Your task to perform on an android device: turn on sleep mode Image 0: 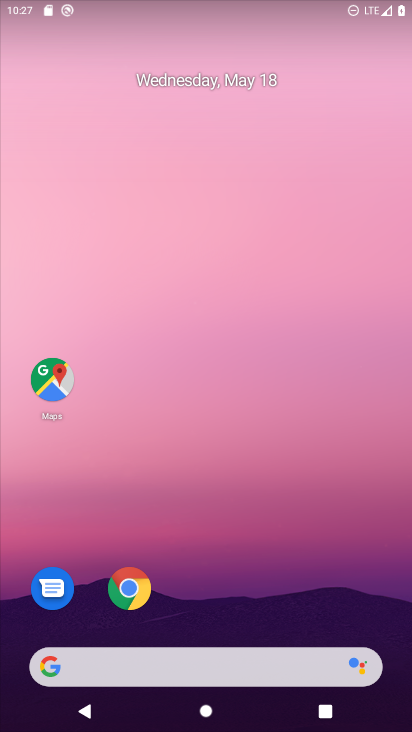
Step 0: drag from (324, 627) to (324, 30)
Your task to perform on an android device: turn on sleep mode Image 1: 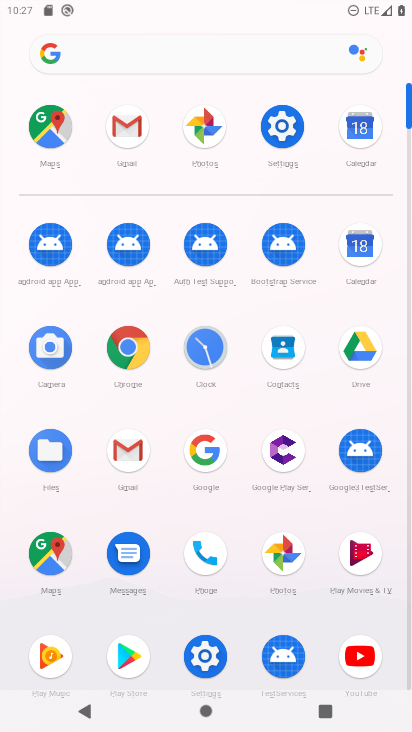
Step 1: click (285, 136)
Your task to perform on an android device: turn on sleep mode Image 2: 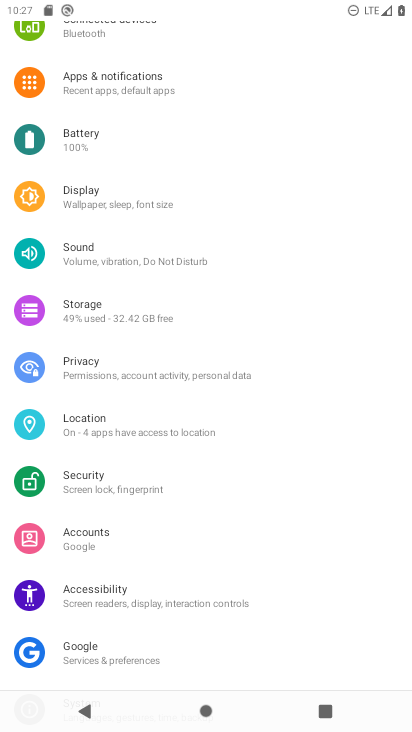
Step 2: click (105, 192)
Your task to perform on an android device: turn on sleep mode Image 3: 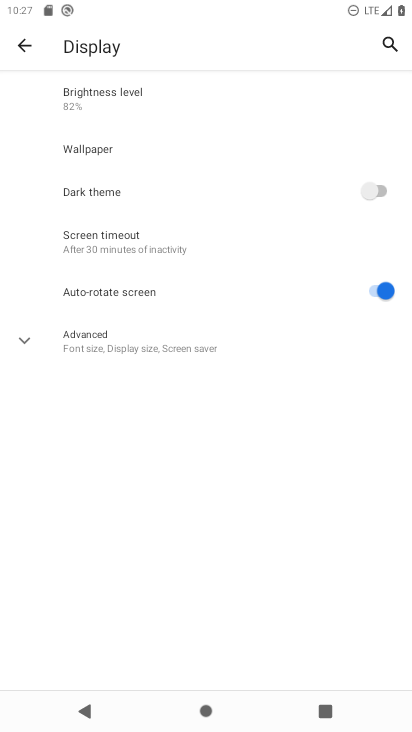
Step 3: click (31, 347)
Your task to perform on an android device: turn on sleep mode Image 4: 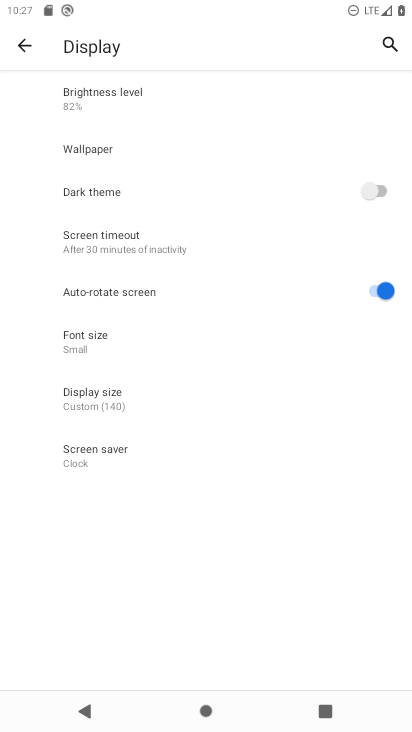
Step 4: task complete